Your task to perform on an android device: Search for vegetarian restaurants on Maps Image 0: 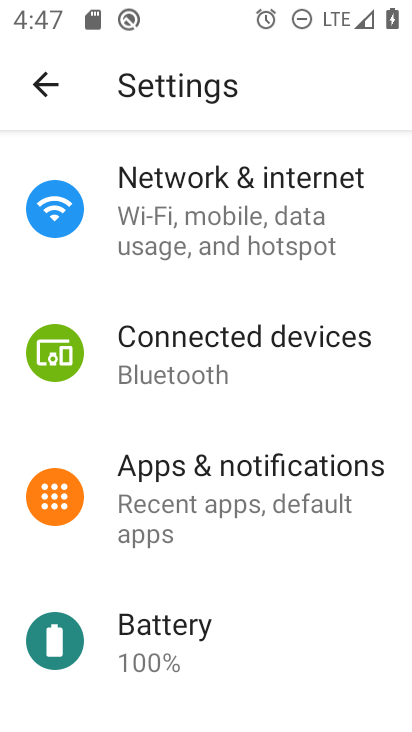
Step 0: press home button
Your task to perform on an android device: Search for vegetarian restaurants on Maps Image 1: 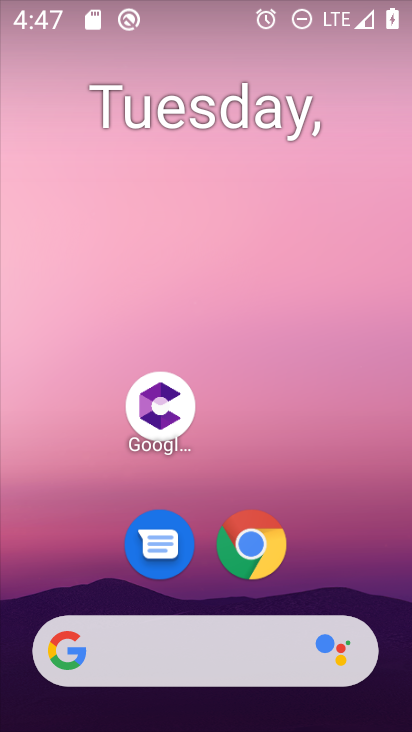
Step 1: drag from (358, 490) to (353, 193)
Your task to perform on an android device: Search for vegetarian restaurants on Maps Image 2: 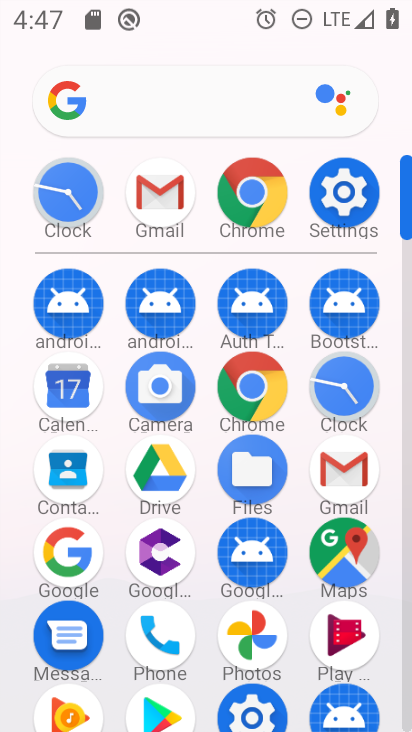
Step 2: click (361, 562)
Your task to perform on an android device: Search for vegetarian restaurants on Maps Image 3: 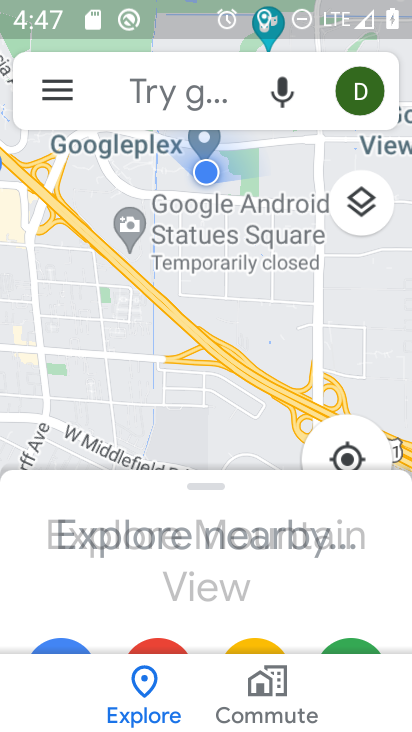
Step 3: click (175, 106)
Your task to perform on an android device: Search for vegetarian restaurants on Maps Image 4: 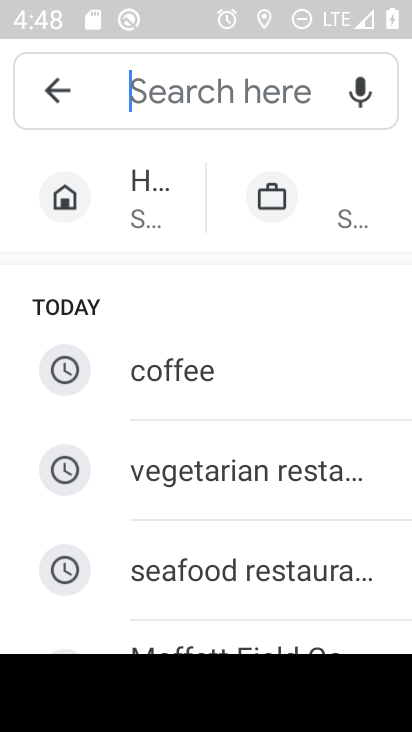
Step 4: type "vegetrains"
Your task to perform on an android device: Search for vegetarian restaurants on Maps Image 5: 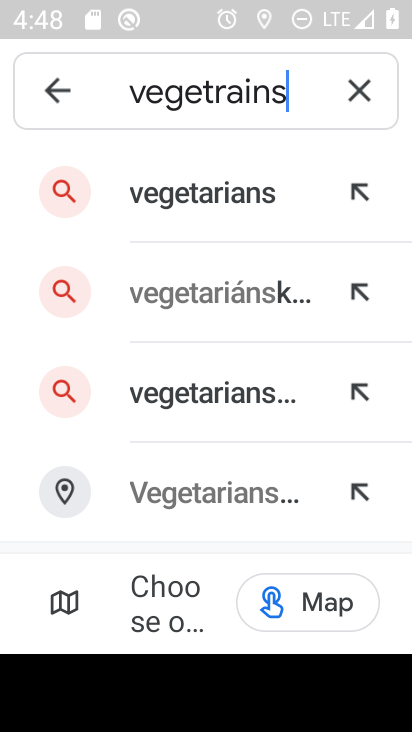
Step 5: click (269, 212)
Your task to perform on an android device: Search for vegetarian restaurants on Maps Image 6: 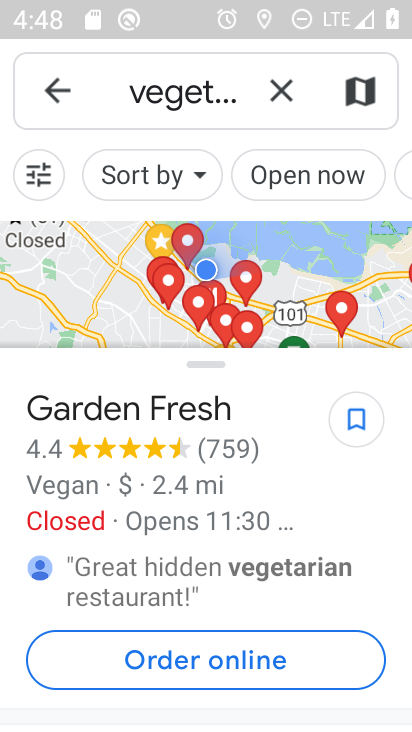
Step 6: task complete